Your task to perform on an android device: Go to Google maps Image 0: 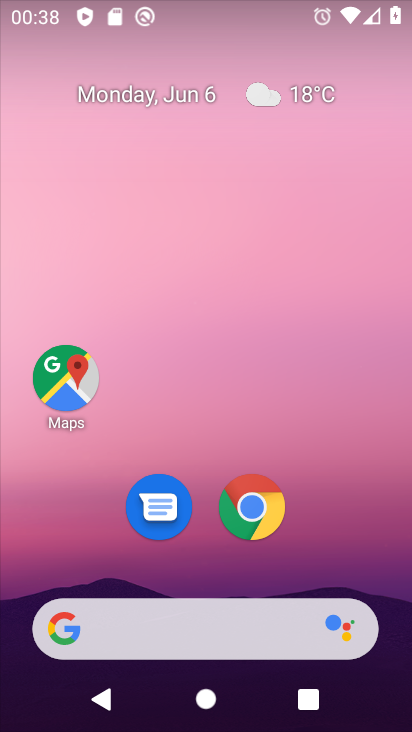
Step 0: click (66, 383)
Your task to perform on an android device: Go to Google maps Image 1: 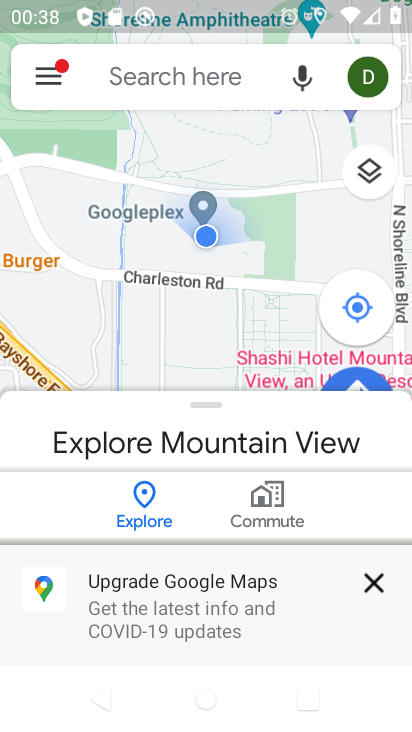
Step 1: click (369, 583)
Your task to perform on an android device: Go to Google maps Image 2: 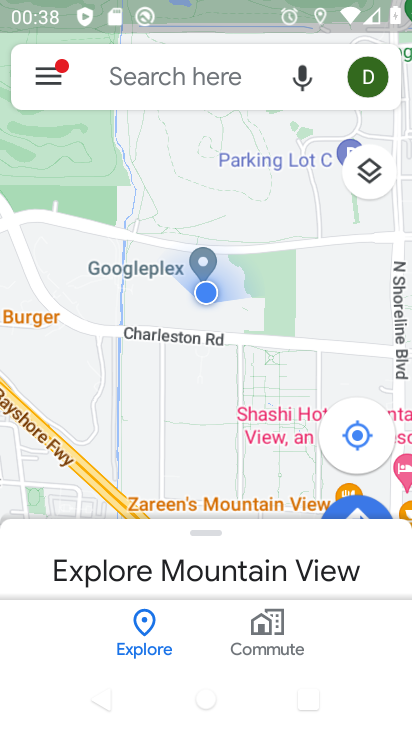
Step 2: task complete